Your task to perform on an android device: toggle notifications settings in the gmail app Image 0: 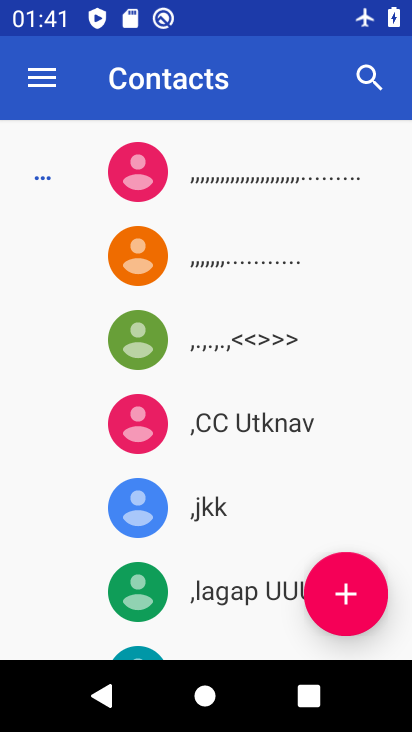
Step 0: press home button
Your task to perform on an android device: toggle notifications settings in the gmail app Image 1: 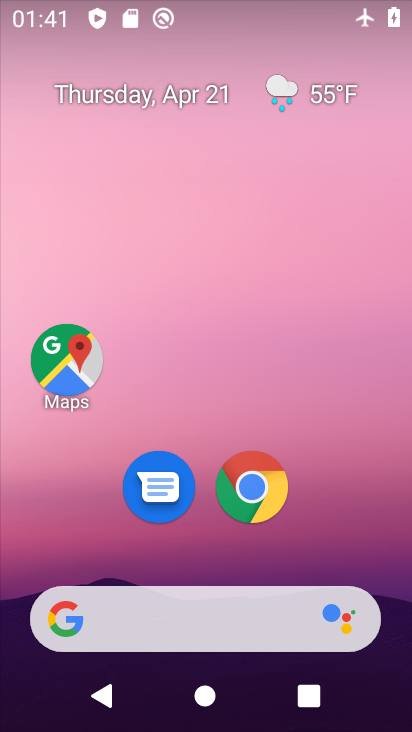
Step 1: drag from (319, 543) to (361, 49)
Your task to perform on an android device: toggle notifications settings in the gmail app Image 2: 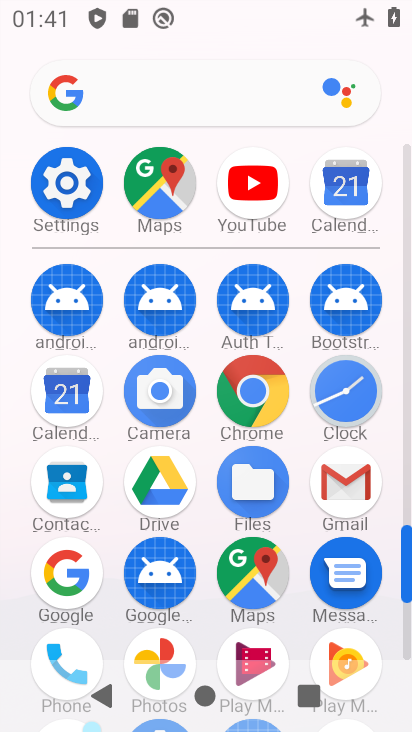
Step 2: click (352, 464)
Your task to perform on an android device: toggle notifications settings in the gmail app Image 3: 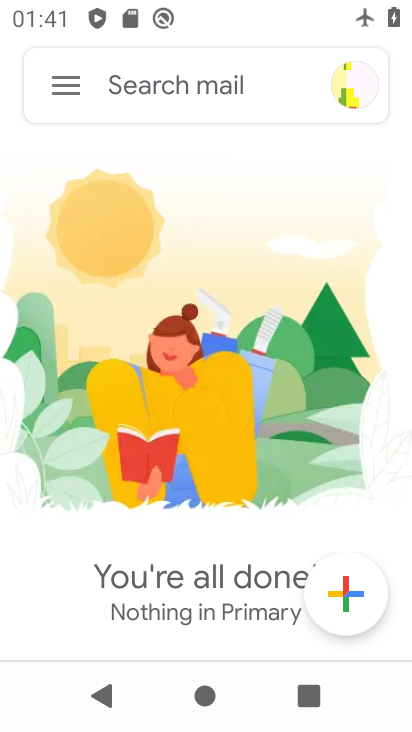
Step 3: click (56, 86)
Your task to perform on an android device: toggle notifications settings in the gmail app Image 4: 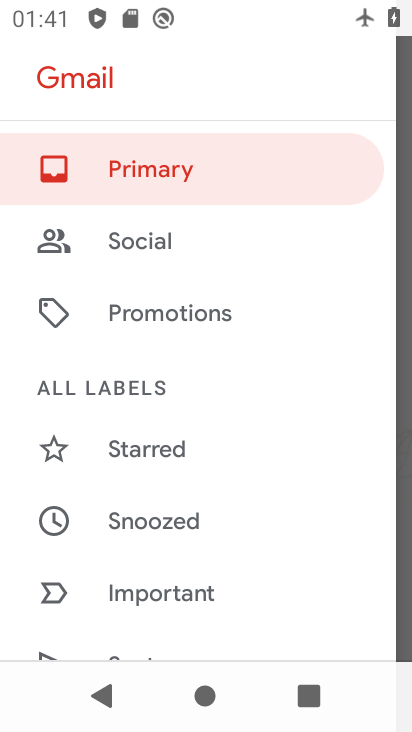
Step 4: drag from (121, 595) to (88, 411)
Your task to perform on an android device: toggle notifications settings in the gmail app Image 5: 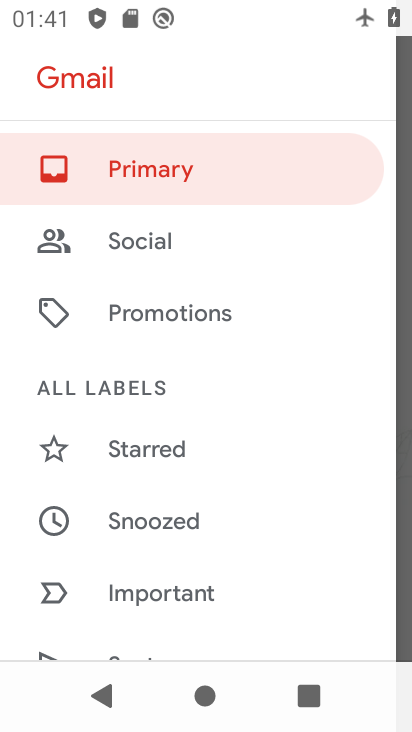
Step 5: drag from (140, 548) to (90, 409)
Your task to perform on an android device: toggle notifications settings in the gmail app Image 6: 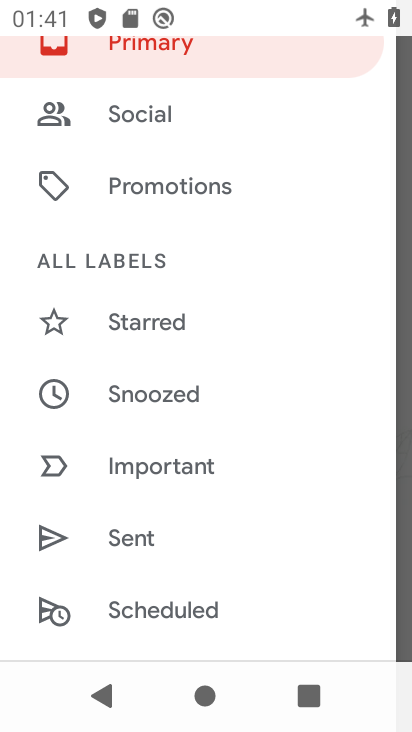
Step 6: drag from (167, 561) to (145, 408)
Your task to perform on an android device: toggle notifications settings in the gmail app Image 7: 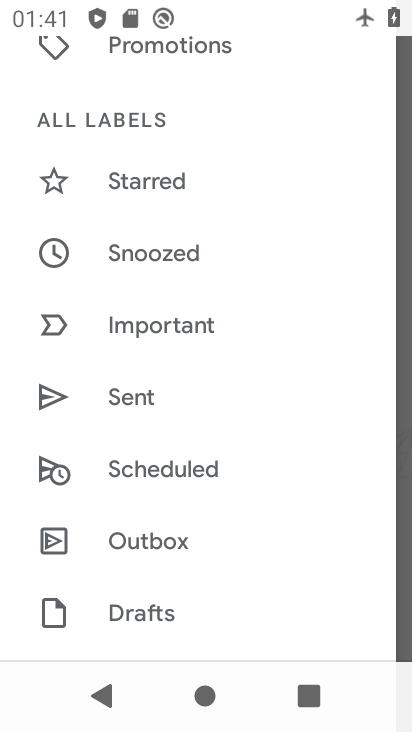
Step 7: drag from (194, 535) to (169, 350)
Your task to perform on an android device: toggle notifications settings in the gmail app Image 8: 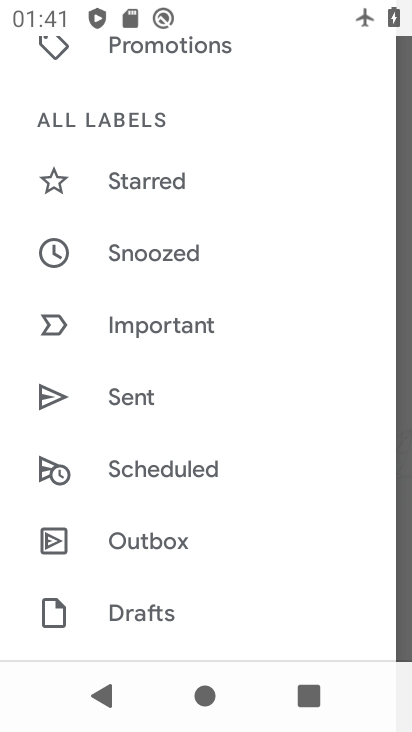
Step 8: drag from (206, 604) to (216, 386)
Your task to perform on an android device: toggle notifications settings in the gmail app Image 9: 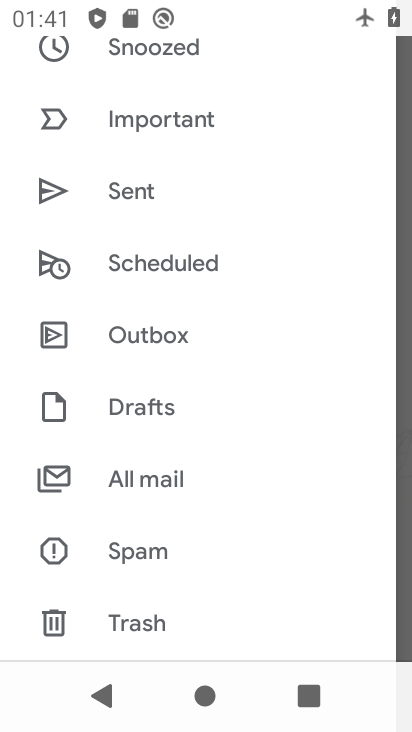
Step 9: drag from (178, 576) to (203, 407)
Your task to perform on an android device: toggle notifications settings in the gmail app Image 10: 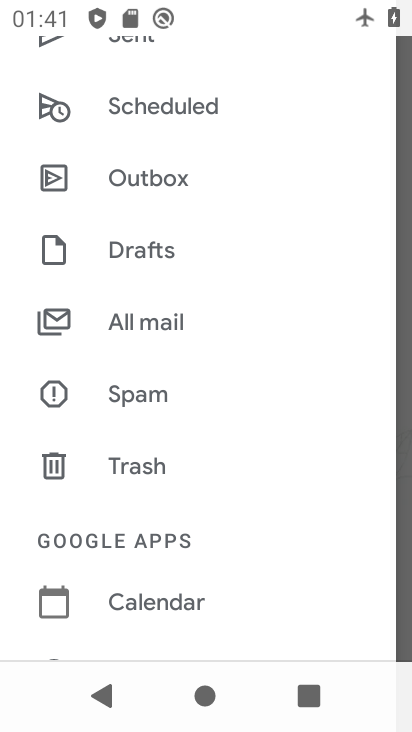
Step 10: drag from (215, 593) to (228, 486)
Your task to perform on an android device: toggle notifications settings in the gmail app Image 11: 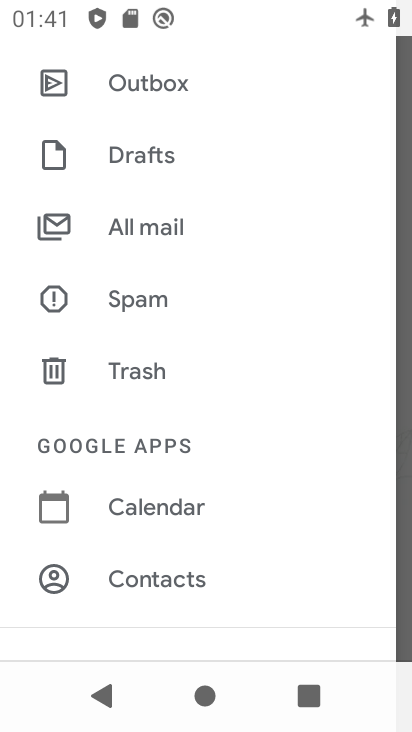
Step 11: drag from (225, 602) to (232, 502)
Your task to perform on an android device: toggle notifications settings in the gmail app Image 12: 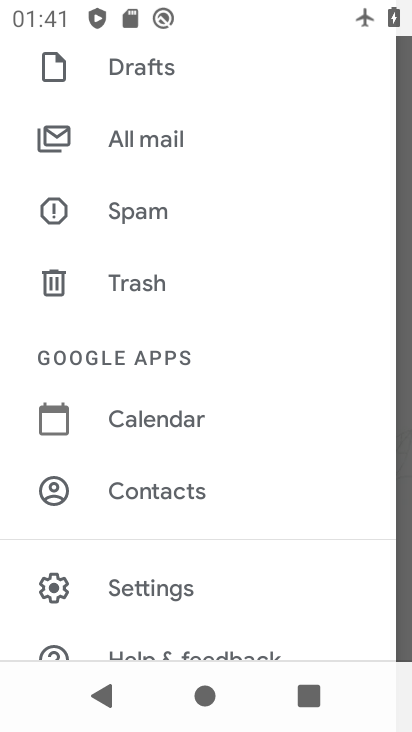
Step 12: click (232, 576)
Your task to perform on an android device: toggle notifications settings in the gmail app Image 13: 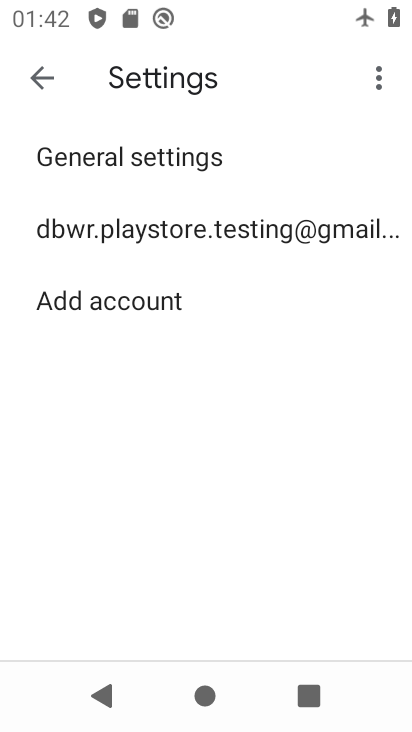
Step 13: click (63, 213)
Your task to perform on an android device: toggle notifications settings in the gmail app Image 14: 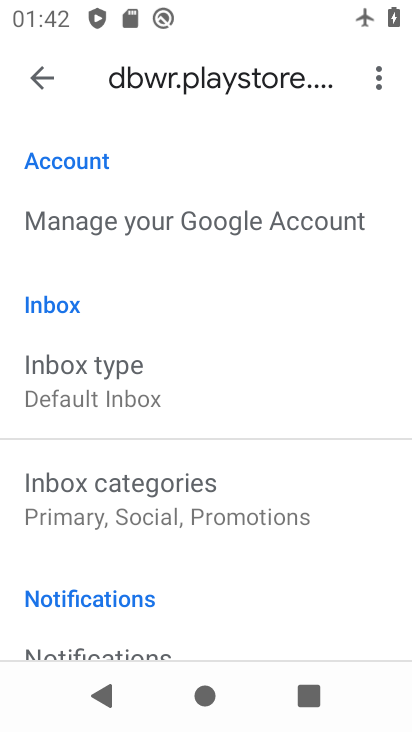
Step 14: drag from (110, 452) to (102, 396)
Your task to perform on an android device: toggle notifications settings in the gmail app Image 15: 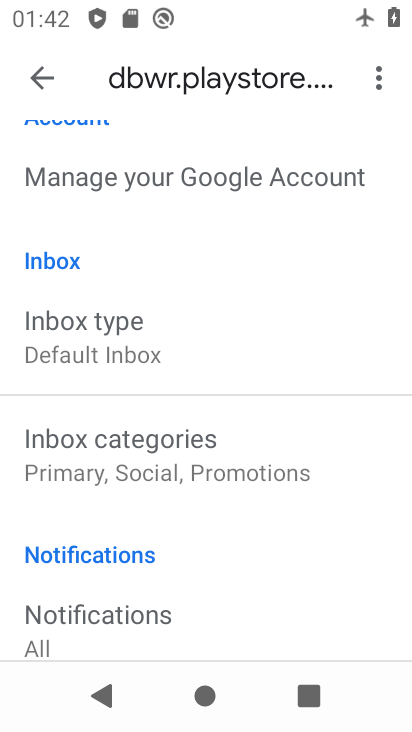
Step 15: drag from (144, 485) to (157, 403)
Your task to perform on an android device: toggle notifications settings in the gmail app Image 16: 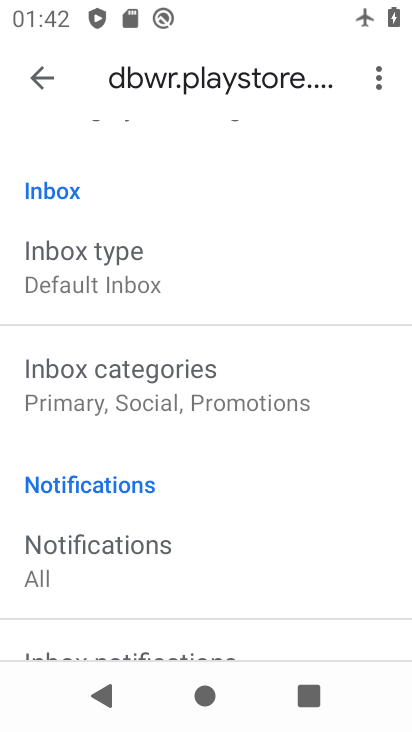
Step 16: drag from (130, 487) to (118, 396)
Your task to perform on an android device: toggle notifications settings in the gmail app Image 17: 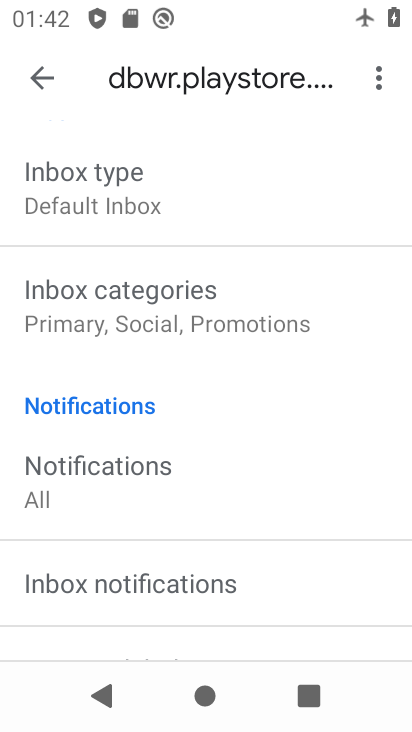
Step 17: drag from (100, 470) to (114, 390)
Your task to perform on an android device: toggle notifications settings in the gmail app Image 18: 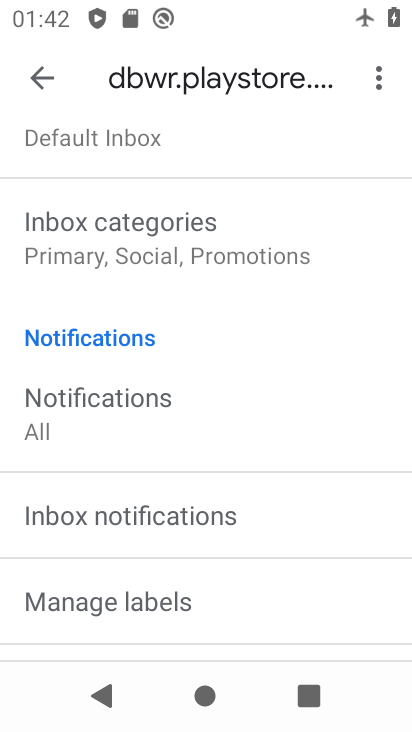
Step 18: drag from (121, 414) to (128, 378)
Your task to perform on an android device: toggle notifications settings in the gmail app Image 19: 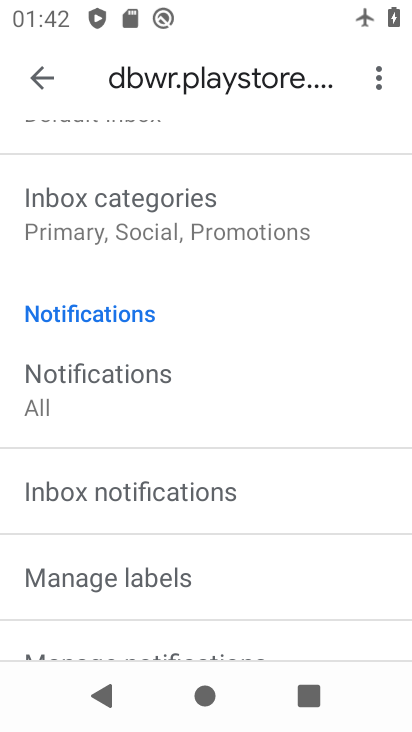
Step 19: drag from (96, 528) to (103, 433)
Your task to perform on an android device: toggle notifications settings in the gmail app Image 20: 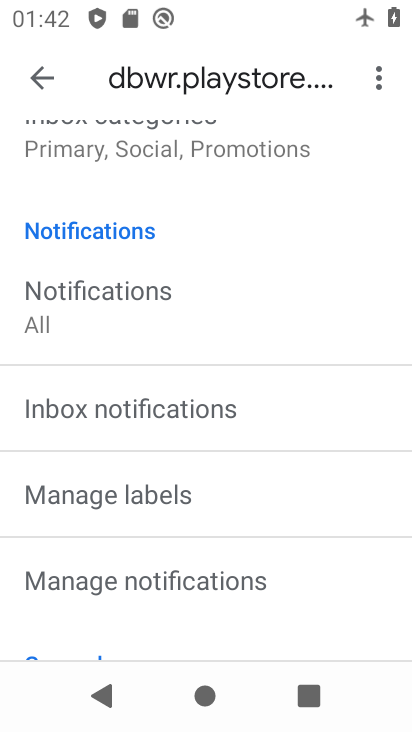
Step 20: drag from (98, 503) to (119, 395)
Your task to perform on an android device: toggle notifications settings in the gmail app Image 21: 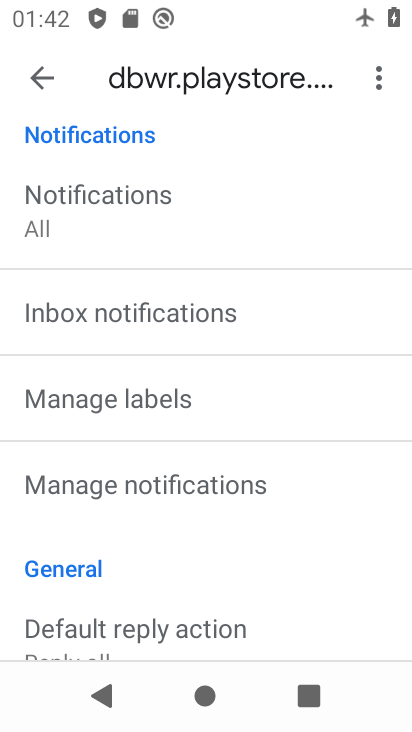
Step 21: click (120, 472)
Your task to perform on an android device: toggle notifications settings in the gmail app Image 22: 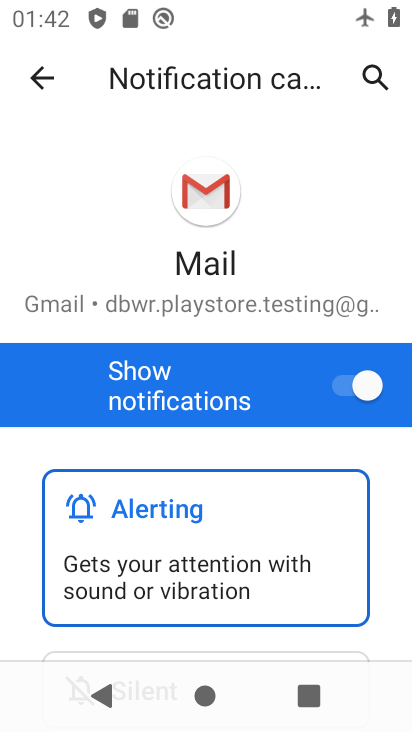
Step 22: click (326, 393)
Your task to perform on an android device: toggle notifications settings in the gmail app Image 23: 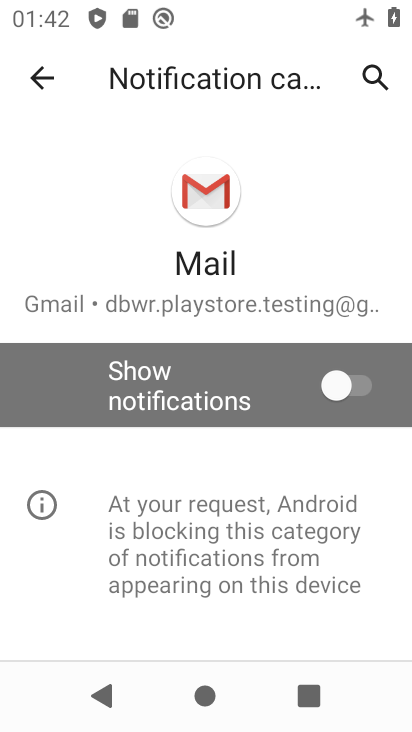
Step 23: task complete